Your task to perform on an android device: toggle pop-ups in chrome Image 0: 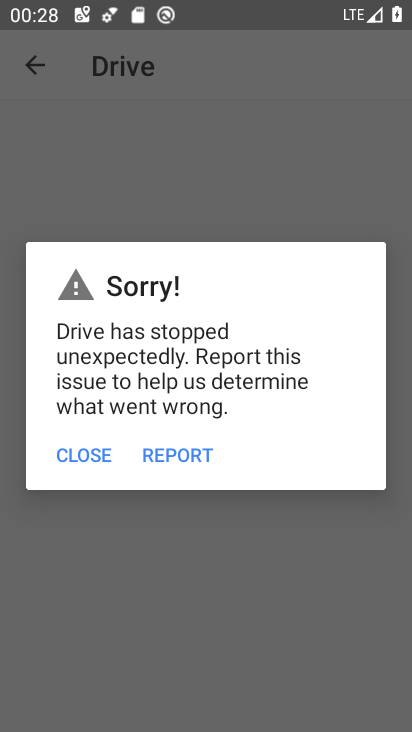
Step 0: press home button
Your task to perform on an android device: toggle pop-ups in chrome Image 1: 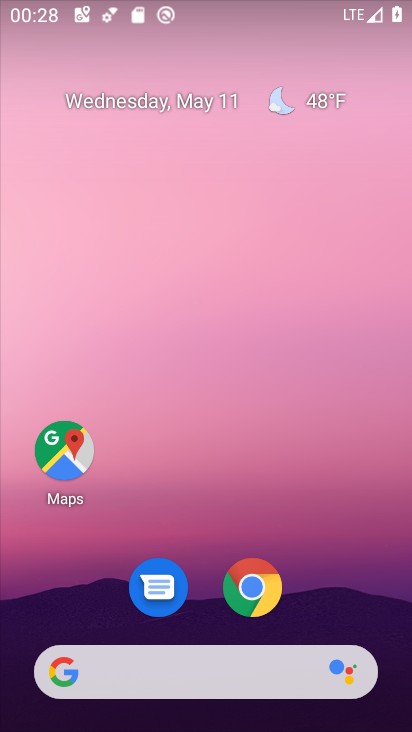
Step 1: click (260, 593)
Your task to perform on an android device: toggle pop-ups in chrome Image 2: 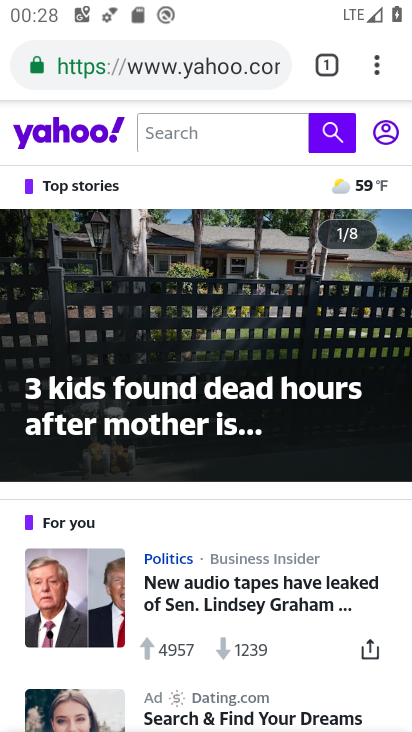
Step 2: click (379, 64)
Your task to perform on an android device: toggle pop-ups in chrome Image 3: 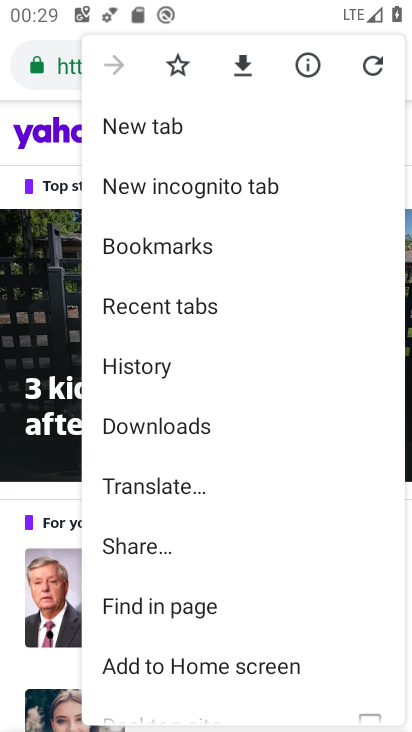
Step 3: drag from (280, 531) to (256, 327)
Your task to perform on an android device: toggle pop-ups in chrome Image 4: 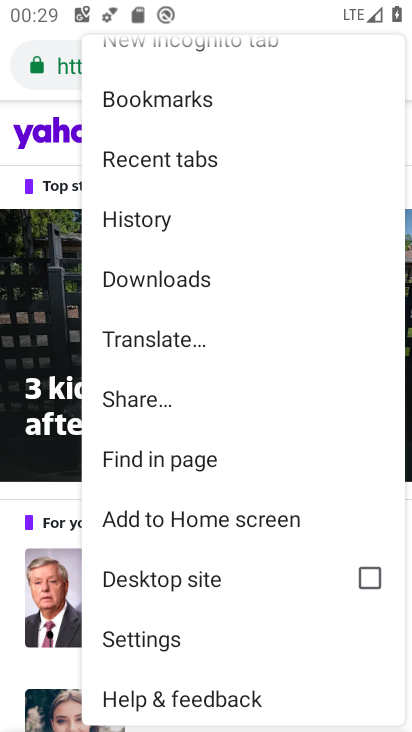
Step 4: click (180, 641)
Your task to perform on an android device: toggle pop-ups in chrome Image 5: 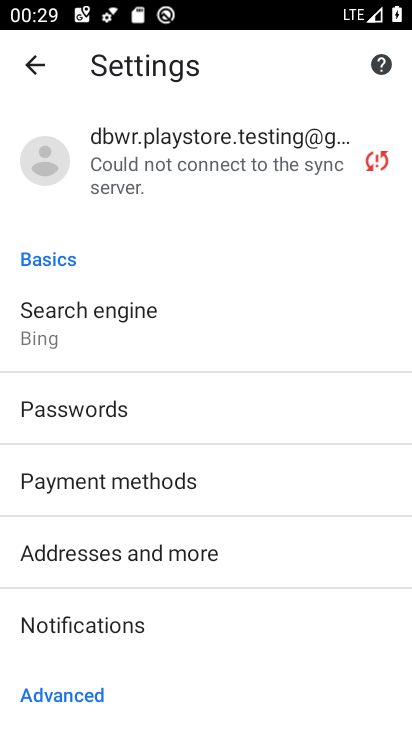
Step 5: drag from (202, 659) to (170, 373)
Your task to perform on an android device: toggle pop-ups in chrome Image 6: 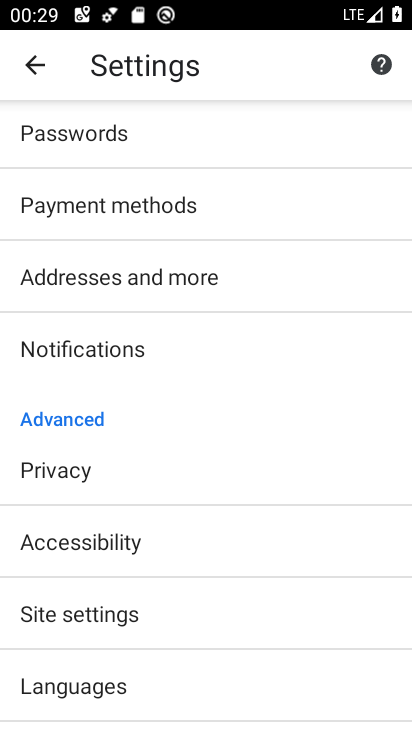
Step 6: click (180, 610)
Your task to perform on an android device: toggle pop-ups in chrome Image 7: 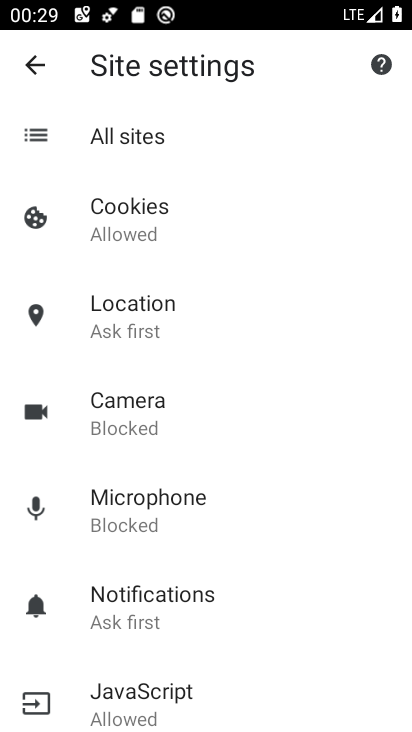
Step 7: drag from (234, 530) to (210, 316)
Your task to perform on an android device: toggle pop-ups in chrome Image 8: 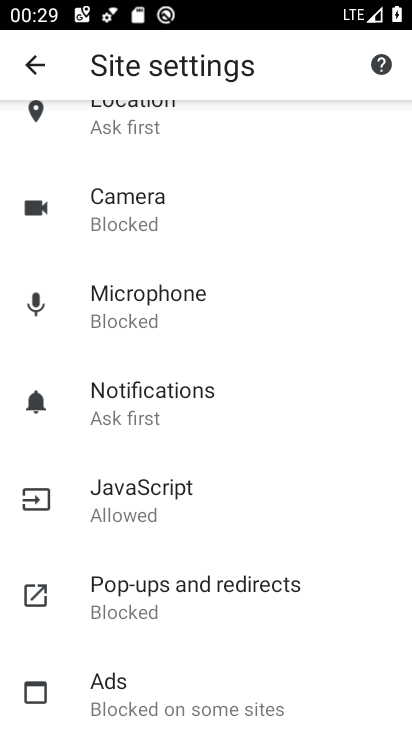
Step 8: click (225, 593)
Your task to perform on an android device: toggle pop-ups in chrome Image 9: 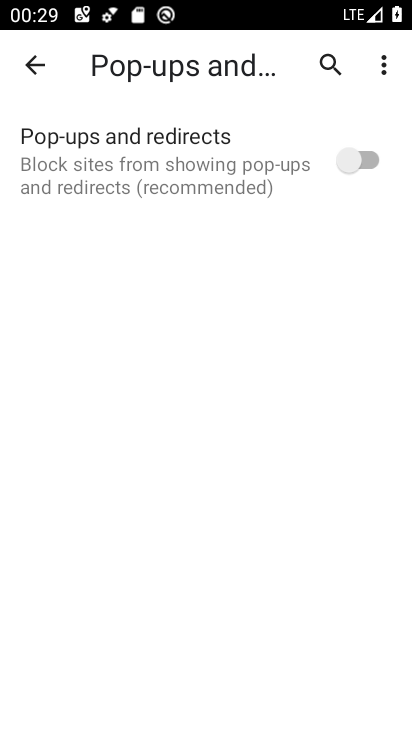
Step 9: click (362, 158)
Your task to perform on an android device: toggle pop-ups in chrome Image 10: 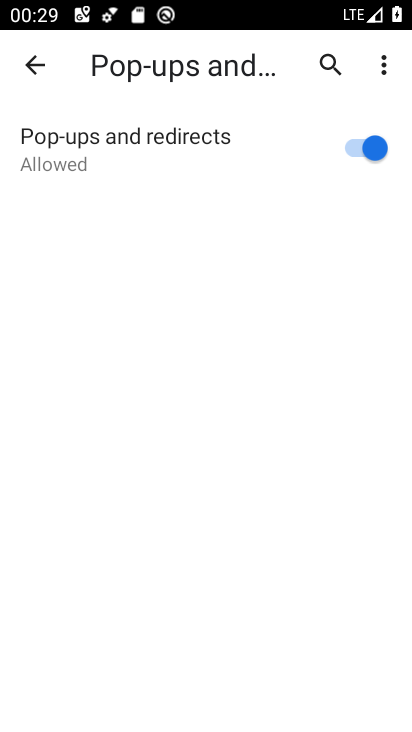
Step 10: task complete